Your task to perform on an android device: Search for the new lego star wars 2021 on Target Image 0: 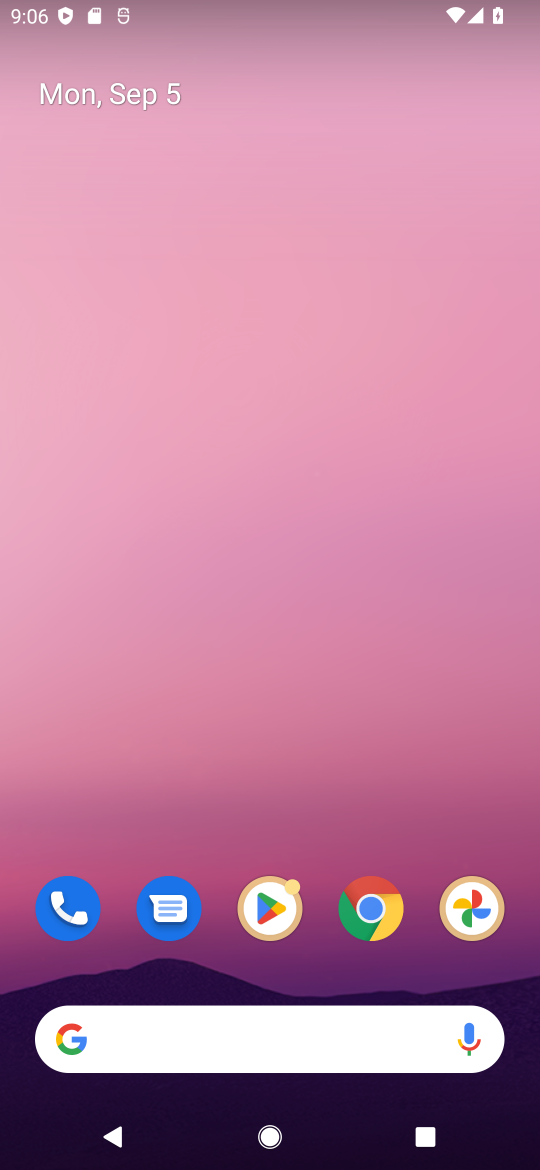
Step 0: drag from (261, 1001) to (197, 180)
Your task to perform on an android device: Search for the new lego star wars 2021 on Target Image 1: 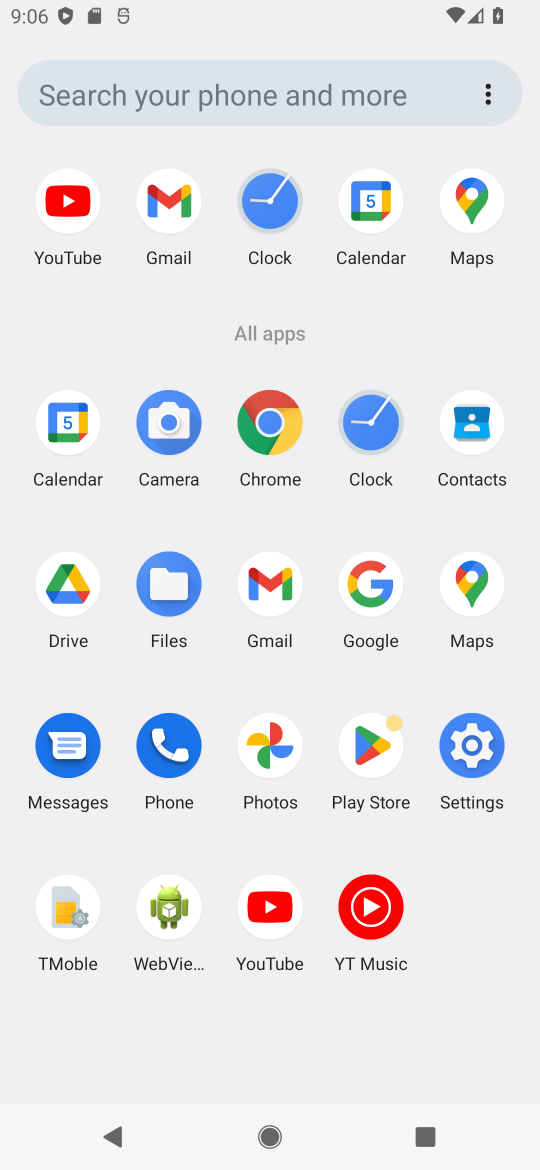
Step 1: click (366, 590)
Your task to perform on an android device: Search for the new lego star wars 2021 on Target Image 2: 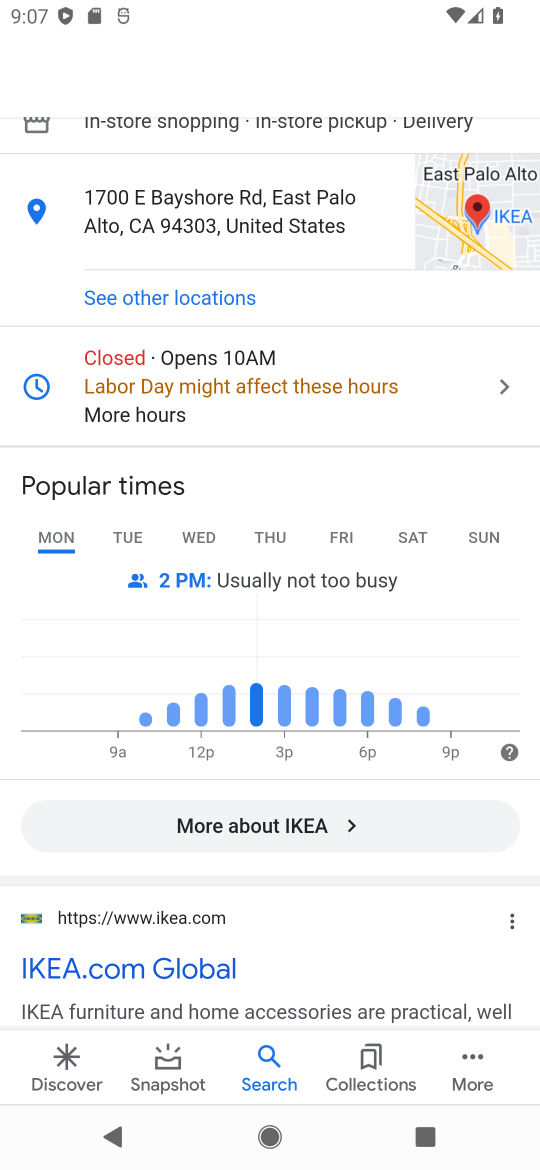
Step 2: drag from (266, 471) to (272, 930)
Your task to perform on an android device: Search for the new lego star wars 2021 on Target Image 3: 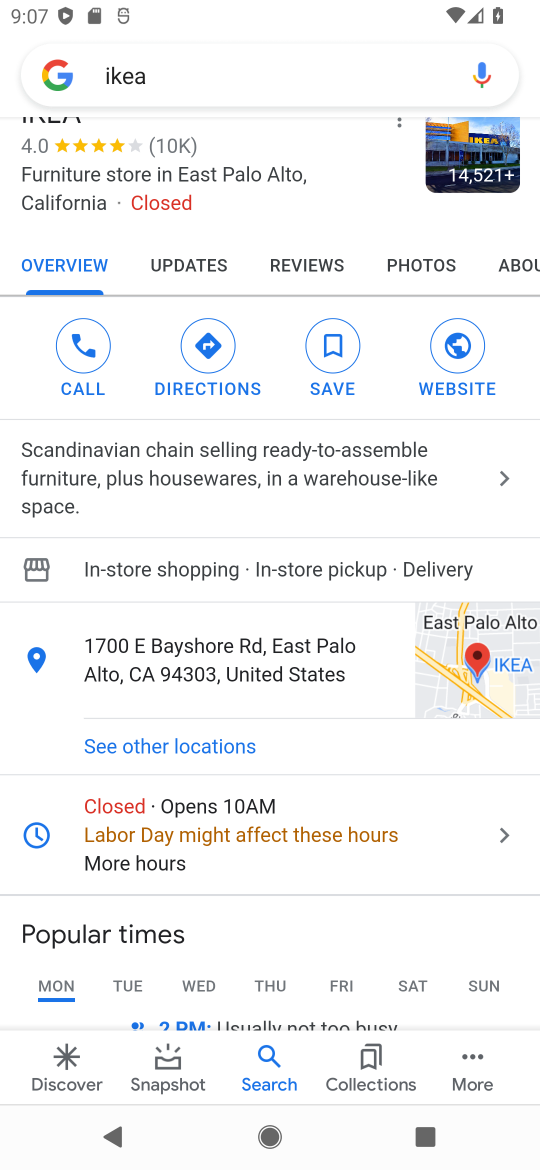
Step 3: drag from (187, 130) to (243, 941)
Your task to perform on an android device: Search for the new lego star wars 2021 on Target Image 4: 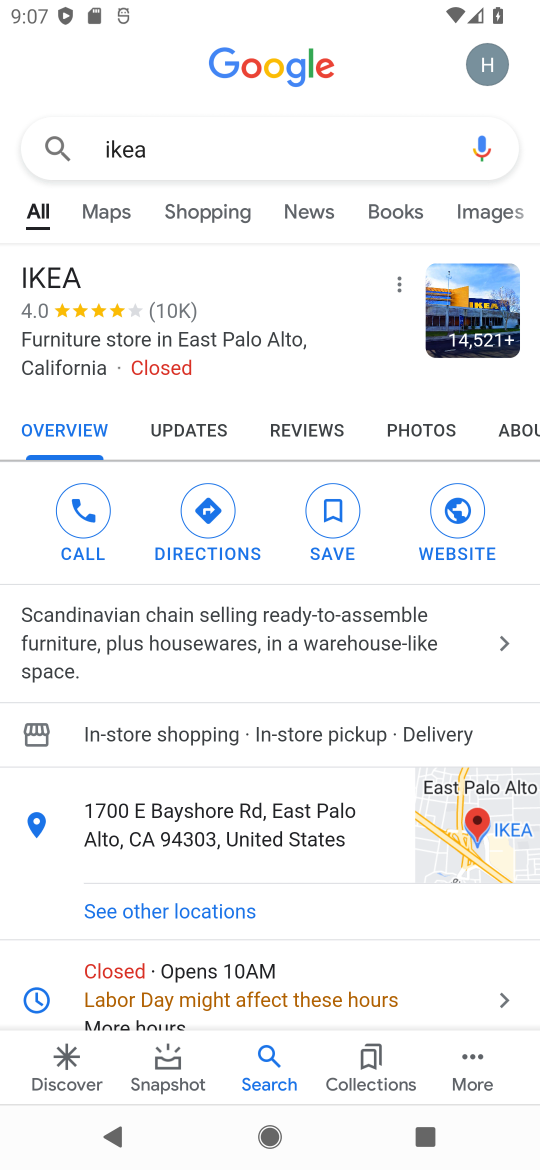
Step 4: click (152, 159)
Your task to perform on an android device: Search for the new lego star wars 2021 on Target Image 5: 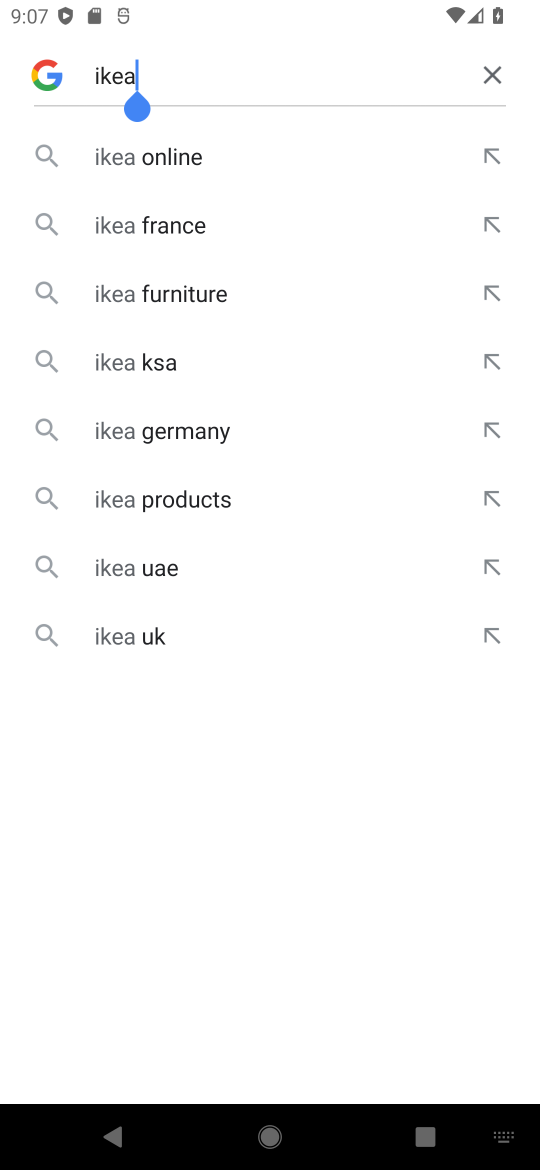
Step 5: click (495, 71)
Your task to perform on an android device: Search for the new lego star wars 2021 on Target Image 6: 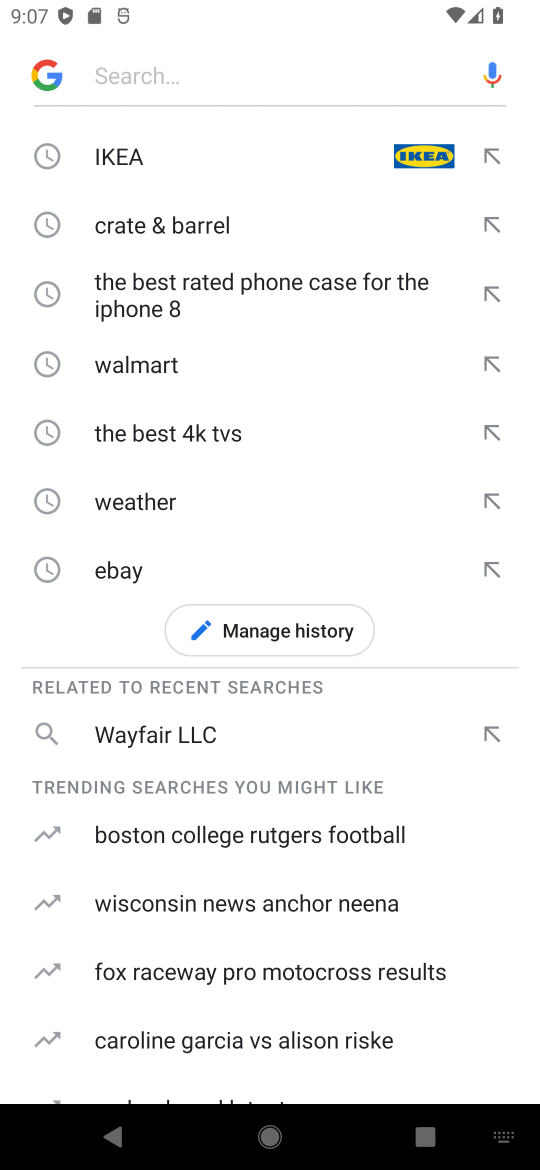
Step 6: type "Target"
Your task to perform on an android device: Search for the new lego star wars 2021 on Target Image 7: 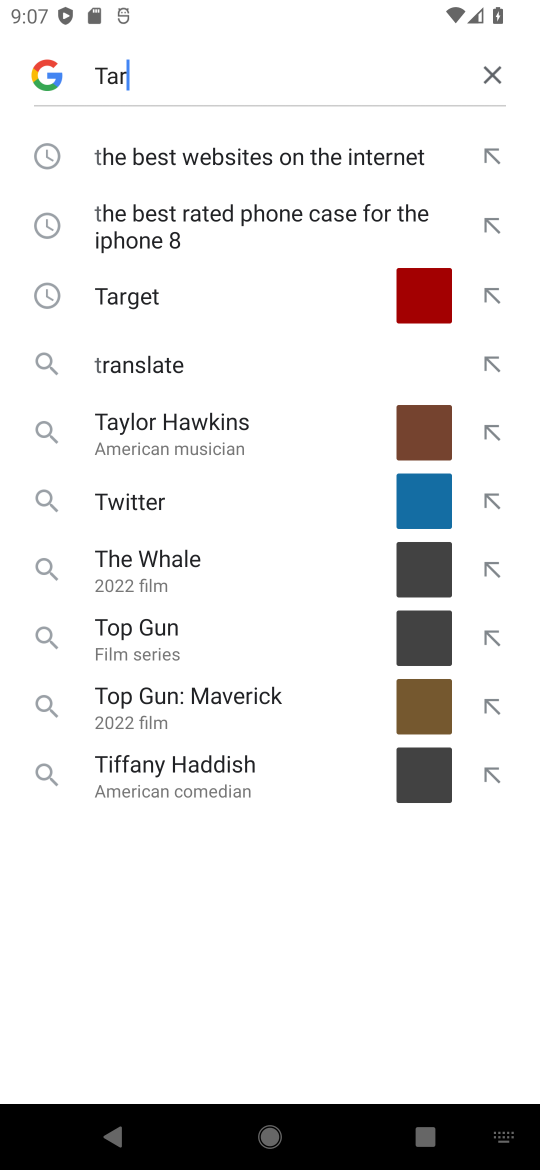
Step 7: type ""
Your task to perform on an android device: Search for the new lego star wars 2021 on Target Image 8: 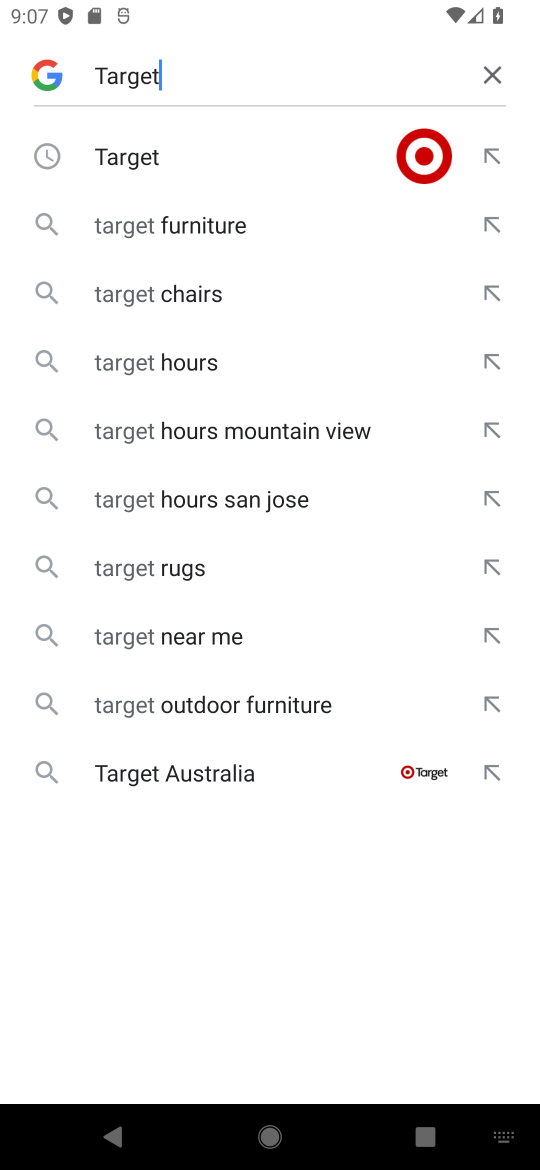
Step 8: click (187, 149)
Your task to perform on an android device: Search for the new lego star wars 2021 on Target Image 9: 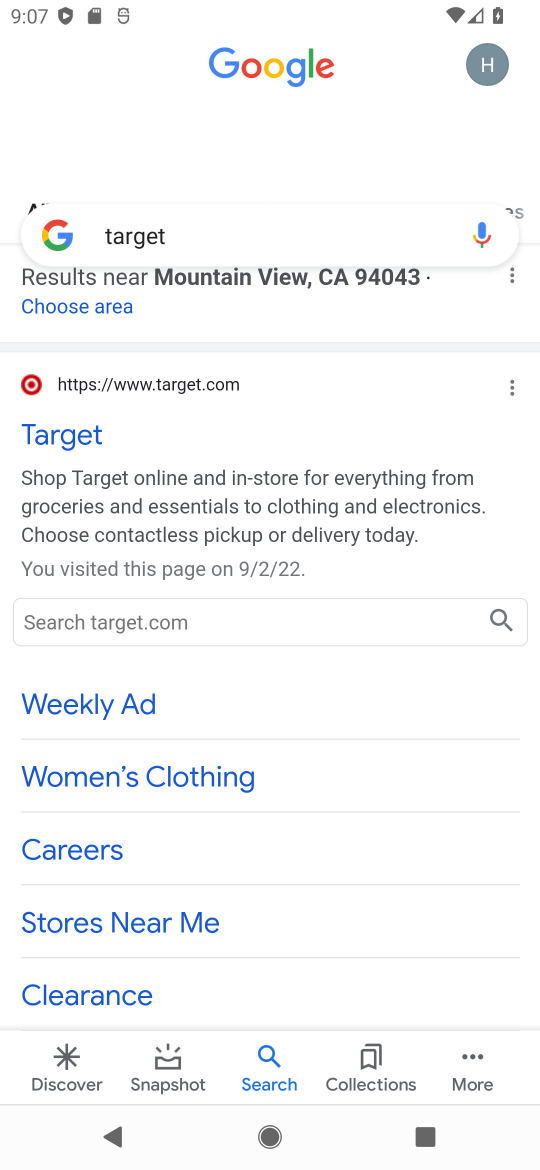
Step 9: click (69, 434)
Your task to perform on an android device: Search for the new lego star wars 2021 on Target Image 10: 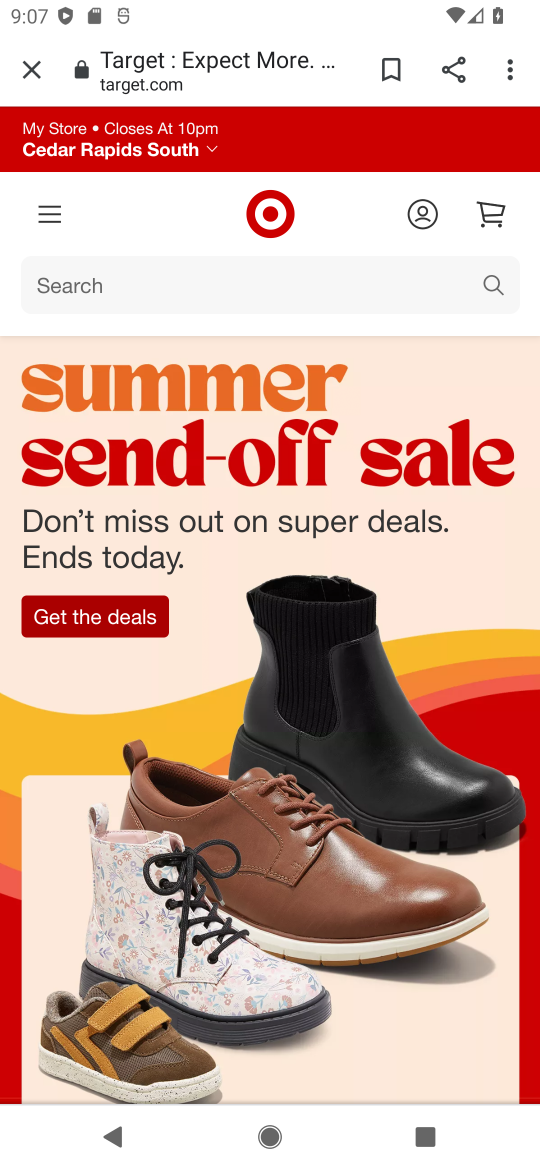
Step 10: click (374, 268)
Your task to perform on an android device: Search for the new lego star wars 2021 on Target Image 11: 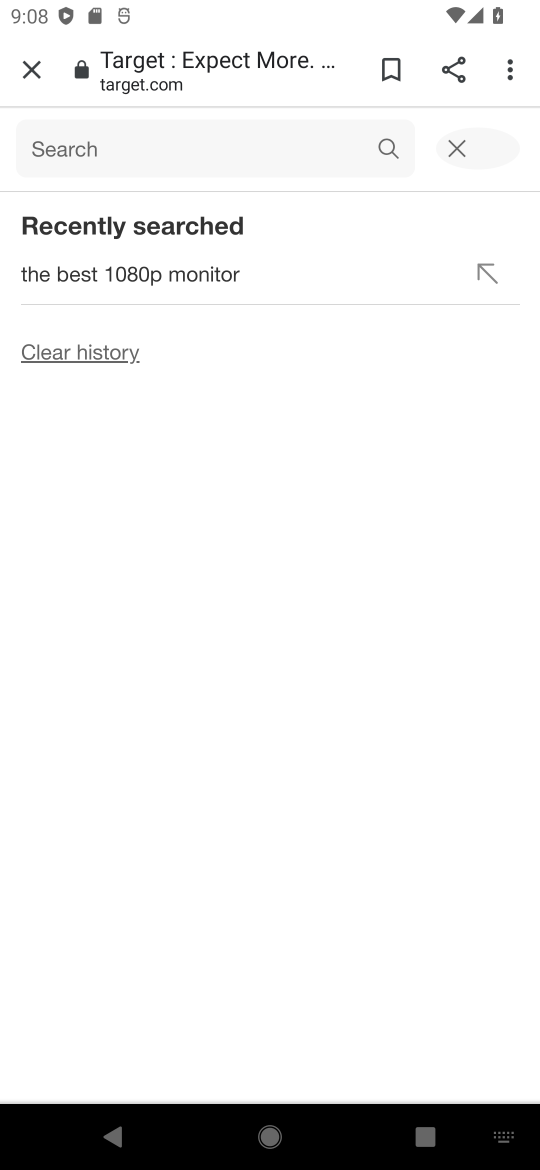
Step 11: type "the new lego star wars 2021"
Your task to perform on an android device: Search for the new lego star wars 2021 on Target Image 12: 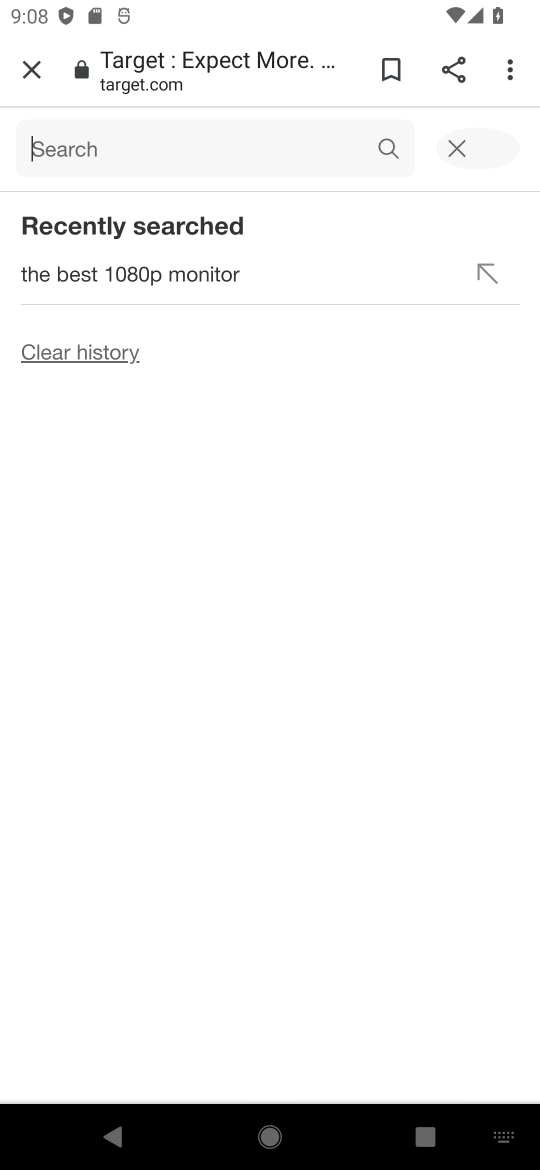
Step 12: type ""
Your task to perform on an android device: Search for the new lego star wars 2021 on Target Image 13: 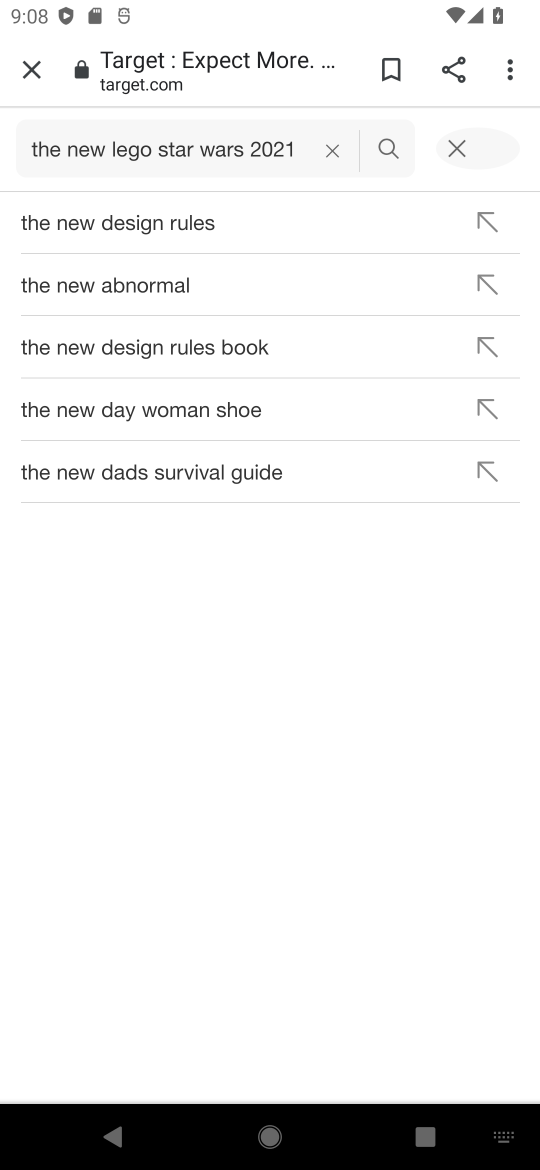
Step 13: click (401, 149)
Your task to perform on an android device: Search for the new lego star wars 2021 on Target Image 14: 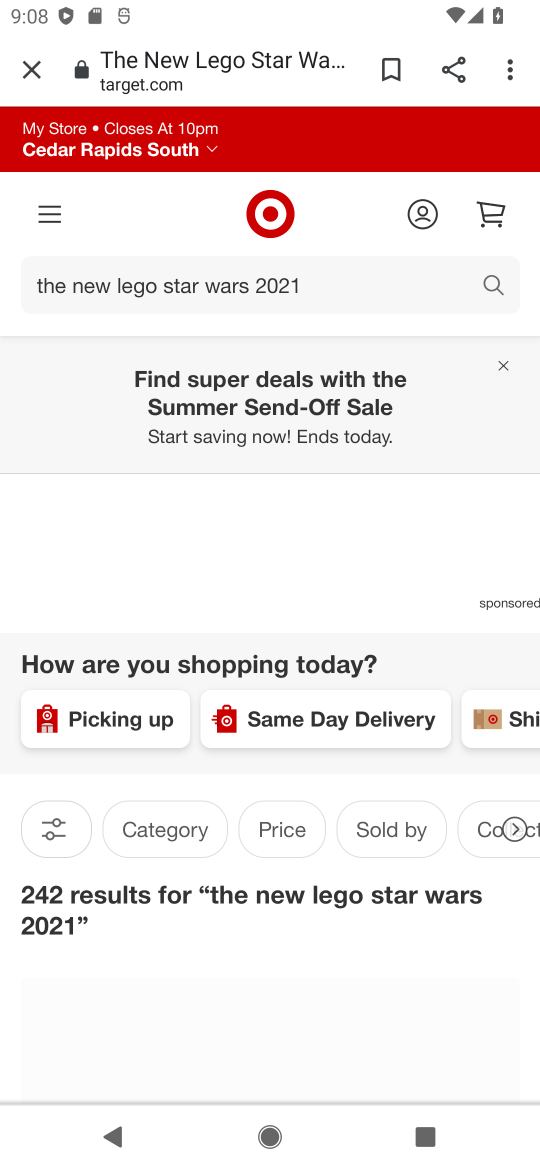
Step 14: click (320, 393)
Your task to perform on an android device: Search for the new lego star wars 2021 on Target Image 15: 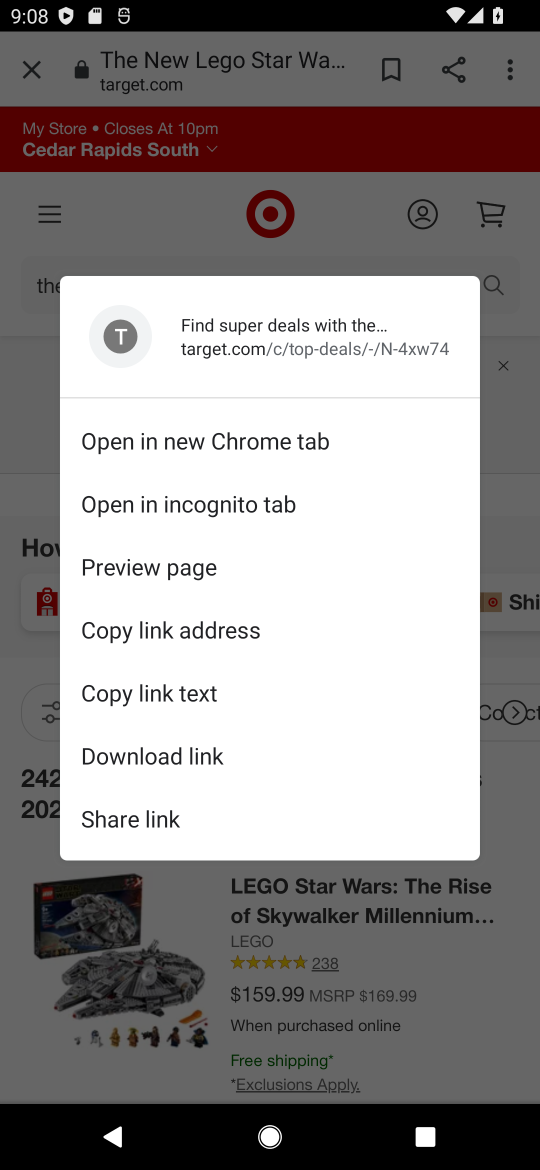
Step 15: task complete